Your task to perform on an android device: Open calendar and show me the third week of next month Image 0: 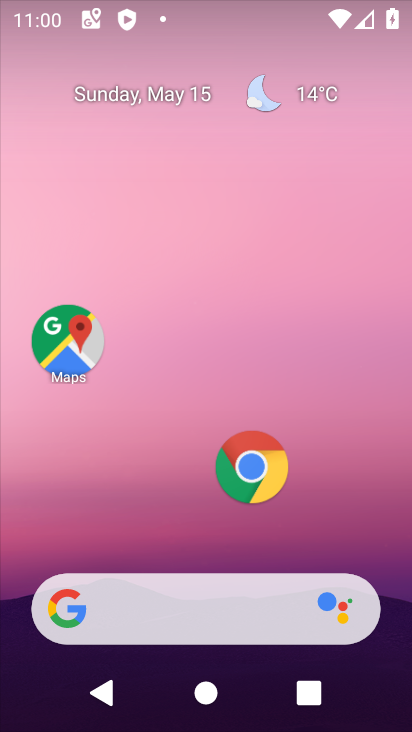
Step 0: drag from (201, 547) to (195, 174)
Your task to perform on an android device: Open calendar and show me the third week of next month Image 1: 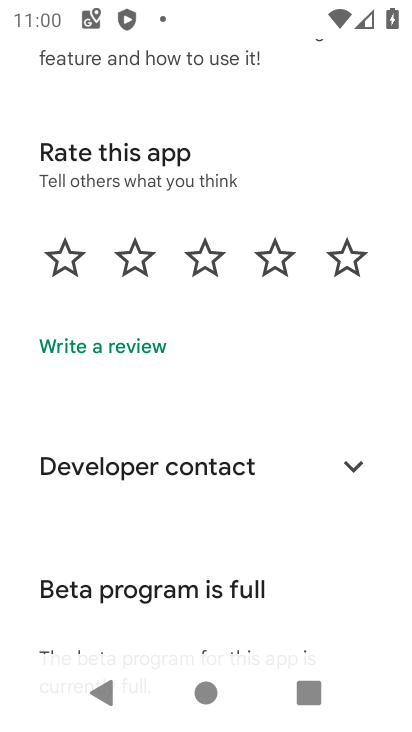
Step 1: drag from (169, 303) to (257, 702)
Your task to perform on an android device: Open calendar and show me the third week of next month Image 2: 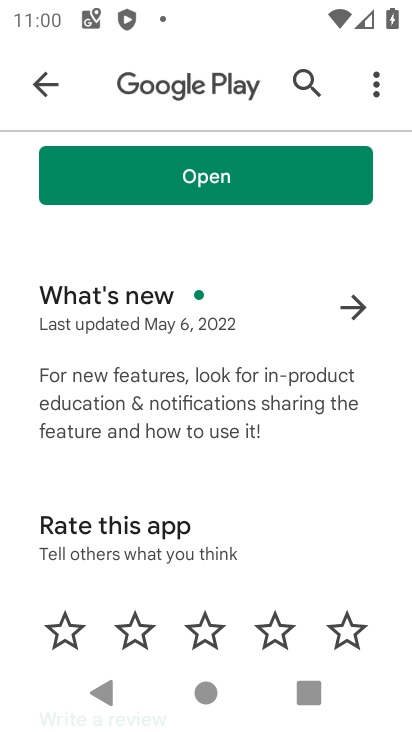
Step 2: drag from (253, 271) to (291, 658)
Your task to perform on an android device: Open calendar and show me the third week of next month Image 3: 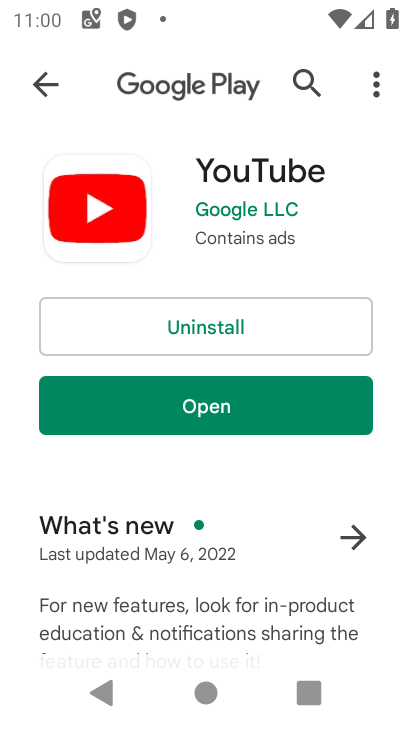
Step 3: press home button
Your task to perform on an android device: Open calendar and show me the third week of next month Image 4: 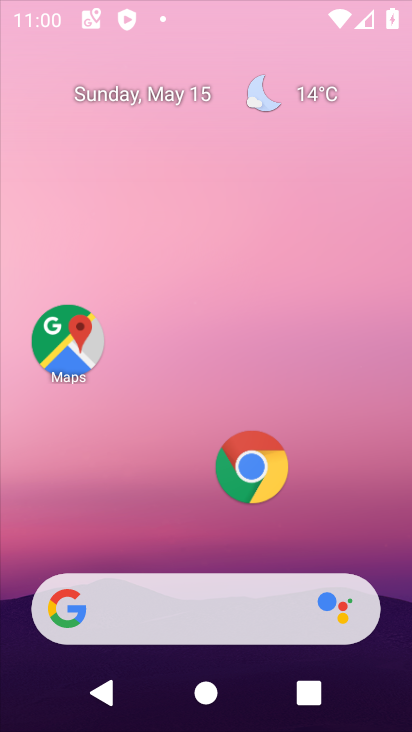
Step 4: drag from (226, 598) to (226, 218)
Your task to perform on an android device: Open calendar and show me the third week of next month Image 5: 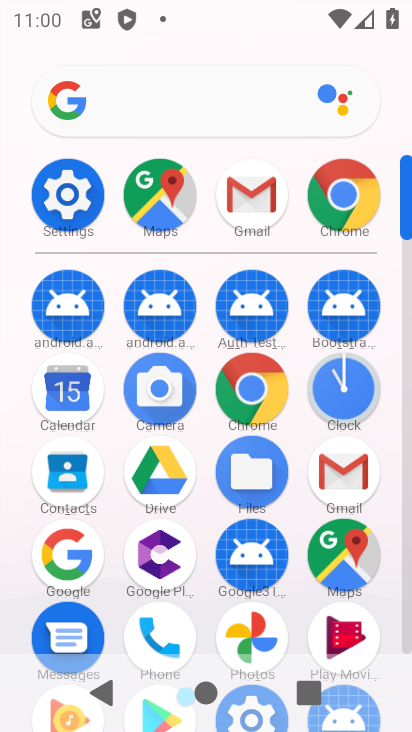
Step 5: click (55, 384)
Your task to perform on an android device: Open calendar and show me the third week of next month Image 6: 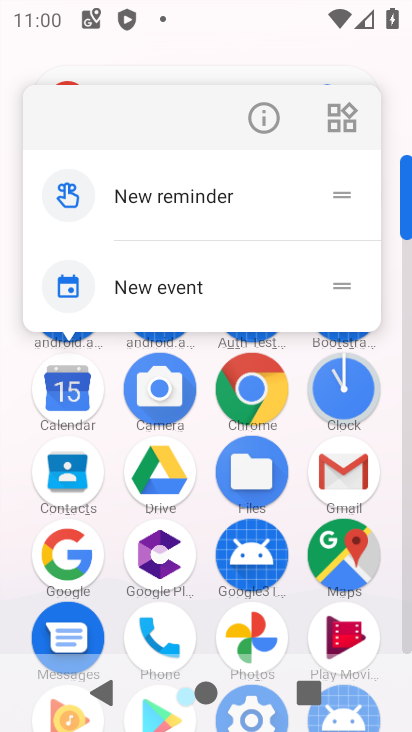
Step 6: click (255, 113)
Your task to perform on an android device: Open calendar and show me the third week of next month Image 7: 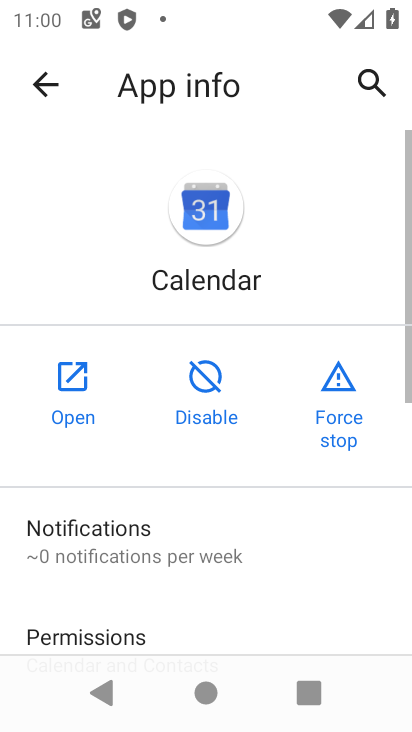
Step 7: click (46, 395)
Your task to perform on an android device: Open calendar and show me the third week of next month Image 8: 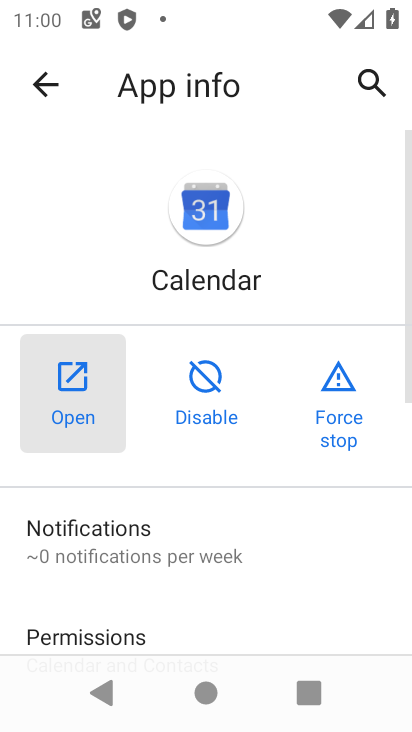
Step 8: click (58, 389)
Your task to perform on an android device: Open calendar and show me the third week of next month Image 9: 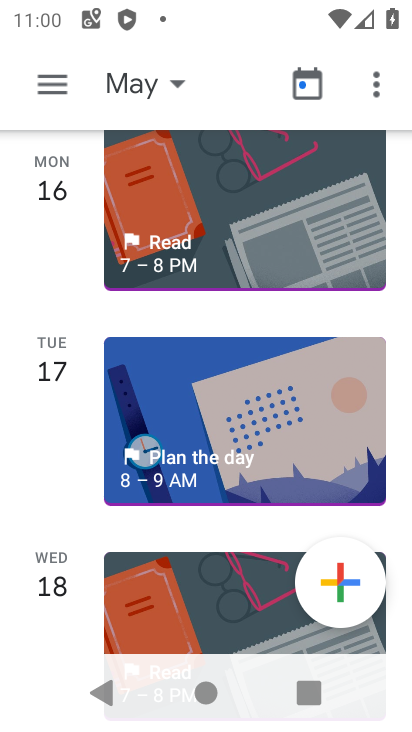
Step 9: click (178, 79)
Your task to perform on an android device: Open calendar and show me the third week of next month Image 10: 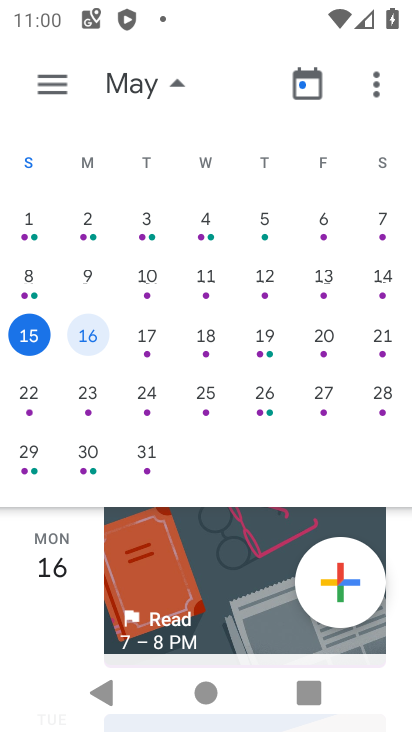
Step 10: click (87, 326)
Your task to perform on an android device: Open calendar and show me the third week of next month Image 11: 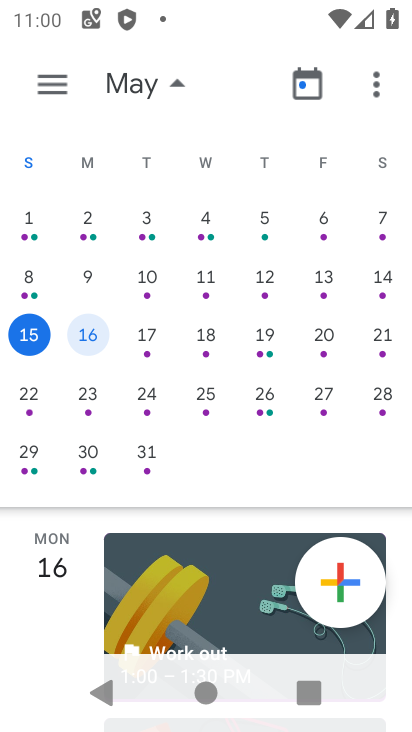
Step 11: drag from (380, 335) to (5, 301)
Your task to perform on an android device: Open calendar and show me the third week of next month Image 12: 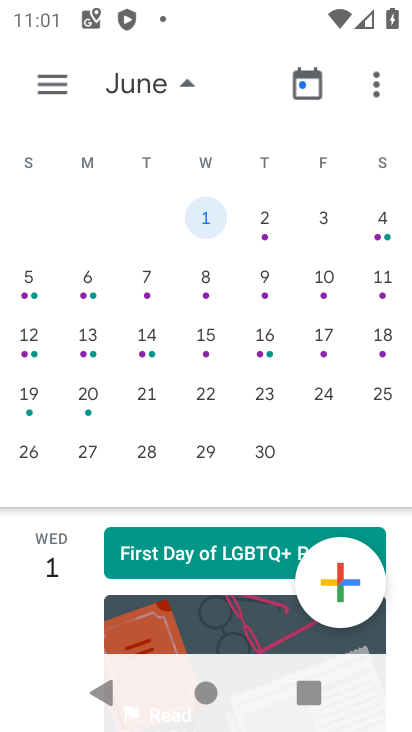
Step 12: click (269, 330)
Your task to perform on an android device: Open calendar and show me the third week of next month Image 13: 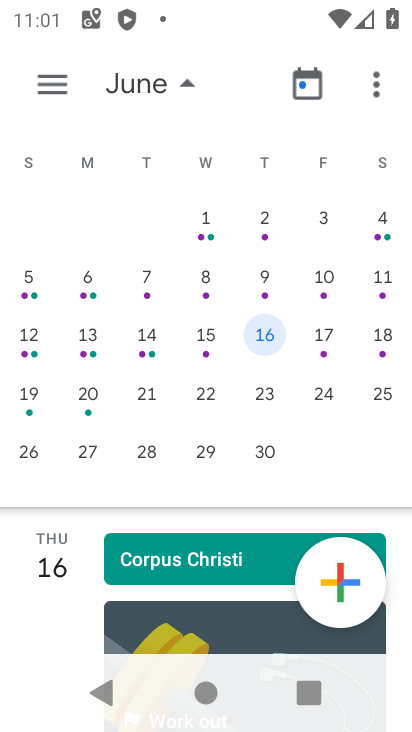
Step 13: task complete